Your task to perform on an android device: turn off location Image 0: 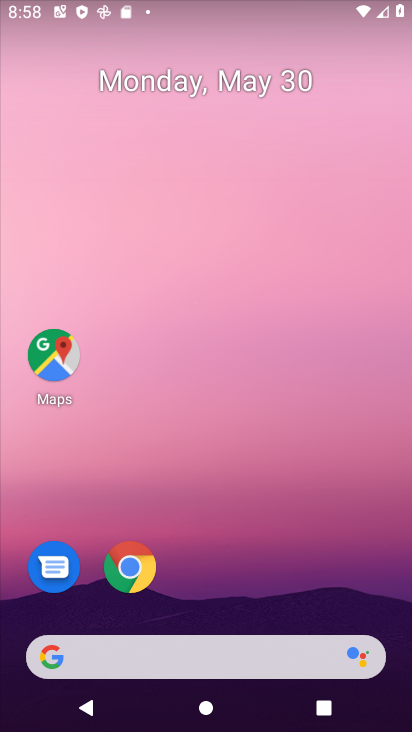
Step 0: drag from (301, 602) to (281, 190)
Your task to perform on an android device: turn off location Image 1: 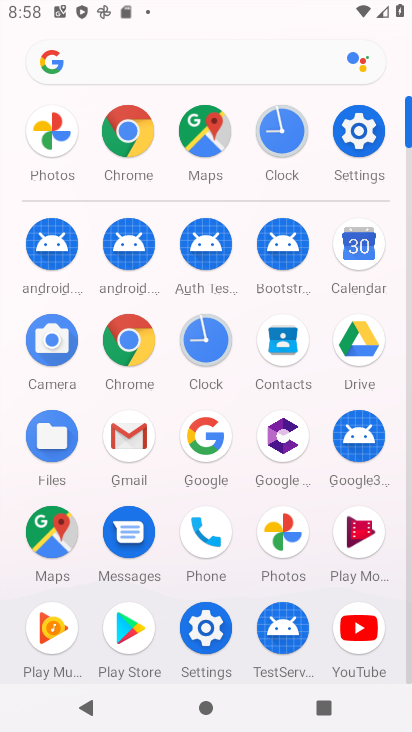
Step 1: click (348, 167)
Your task to perform on an android device: turn off location Image 2: 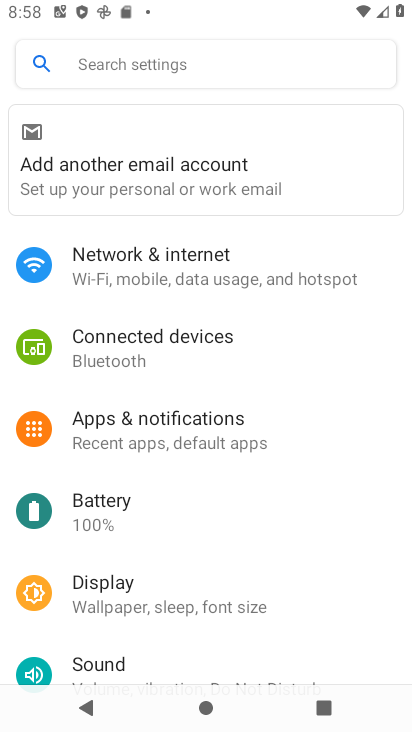
Step 2: task complete